Your task to perform on an android device: Search for vegetarian restaurants on Maps Image 0: 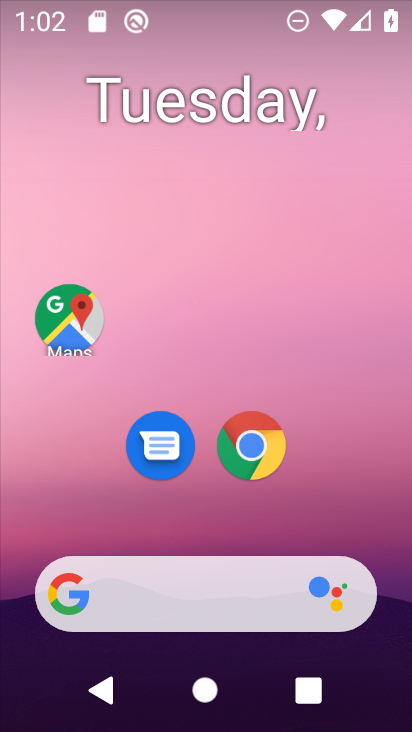
Step 0: click (63, 327)
Your task to perform on an android device: Search for vegetarian restaurants on Maps Image 1: 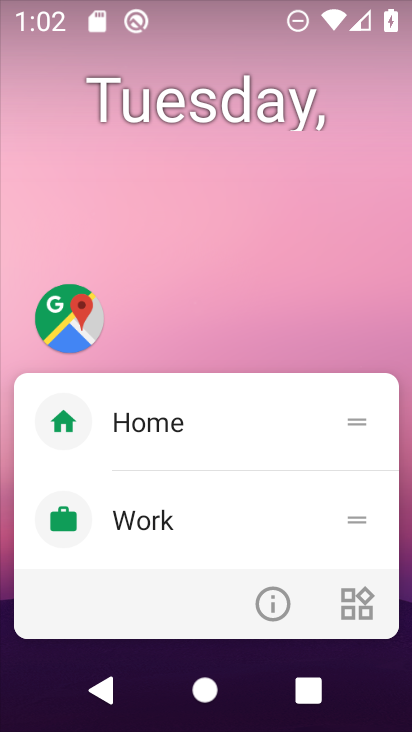
Step 1: click (72, 326)
Your task to perform on an android device: Search for vegetarian restaurants on Maps Image 2: 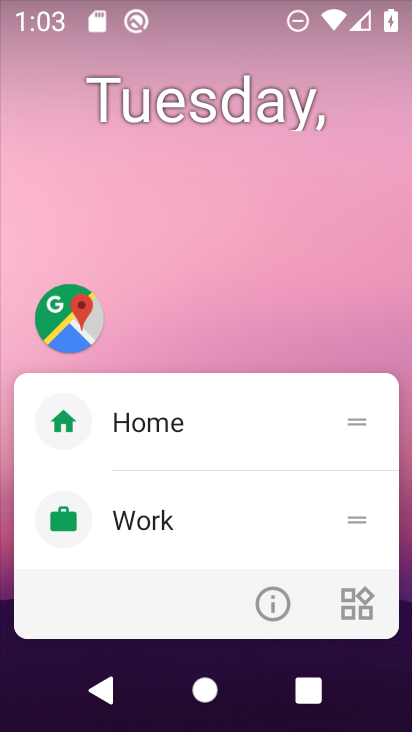
Step 2: click (56, 316)
Your task to perform on an android device: Search for vegetarian restaurants on Maps Image 3: 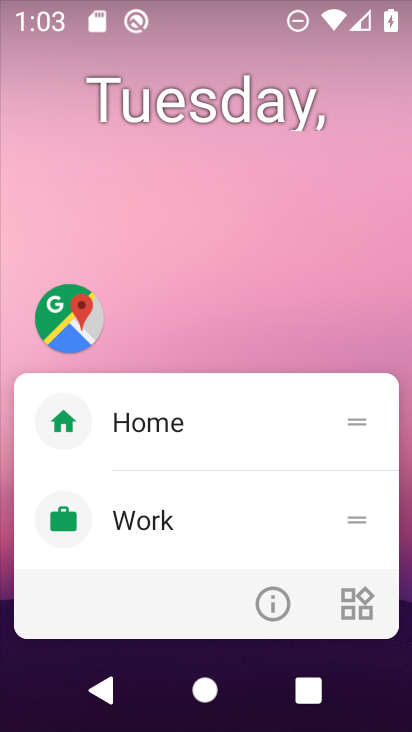
Step 3: click (65, 316)
Your task to perform on an android device: Search for vegetarian restaurants on Maps Image 4: 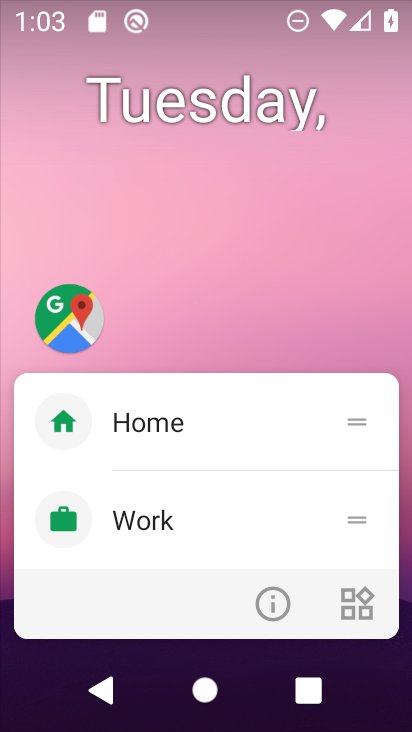
Step 4: click (198, 429)
Your task to perform on an android device: Search for vegetarian restaurants on Maps Image 5: 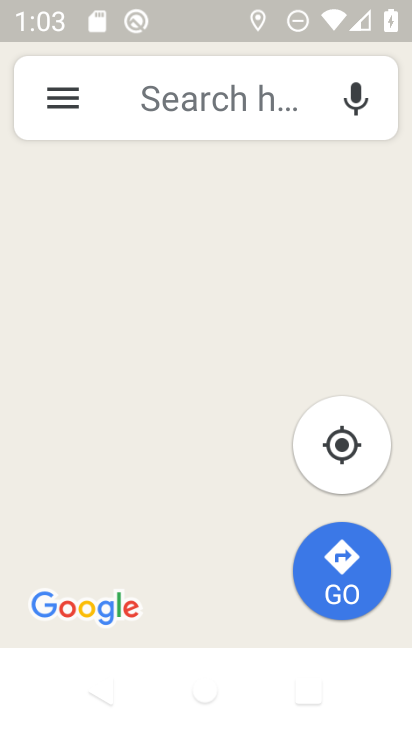
Step 5: click (264, 107)
Your task to perform on an android device: Search for vegetarian restaurants on Maps Image 6: 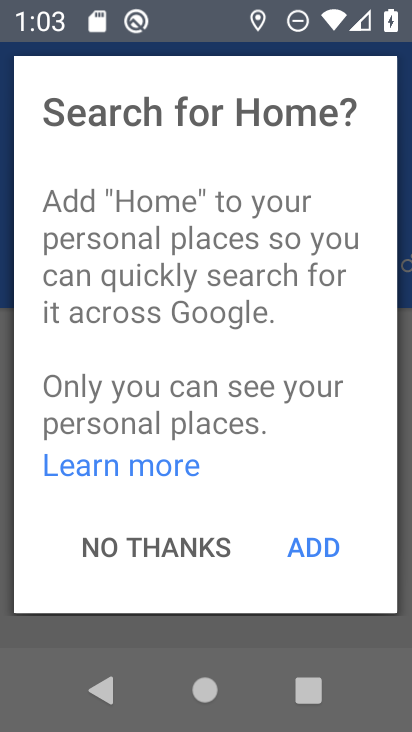
Step 6: click (226, 547)
Your task to perform on an android device: Search for vegetarian restaurants on Maps Image 7: 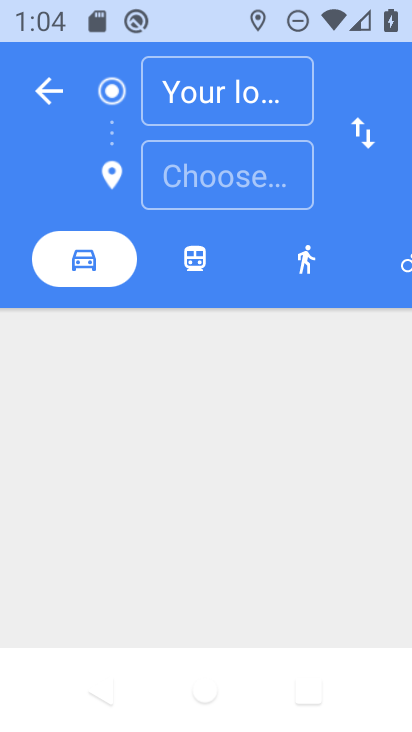
Step 7: click (245, 184)
Your task to perform on an android device: Search for vegetarian restaurants on Maps Image 8: 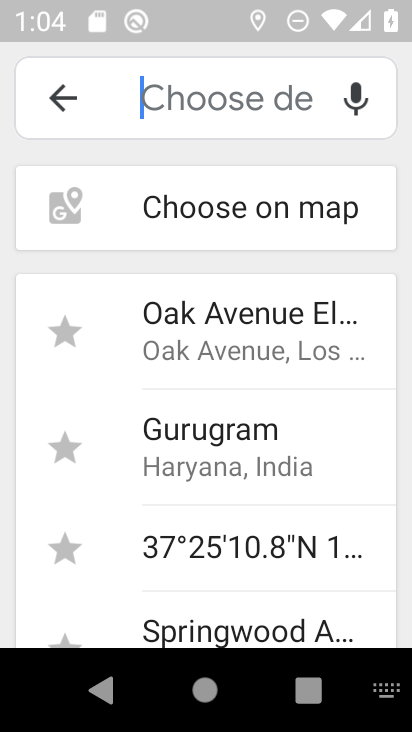
Step 8: type "vegetarian restaurant"
Your task to perform on an android device: Search for vegetarian restaurants on Maps Image 9: 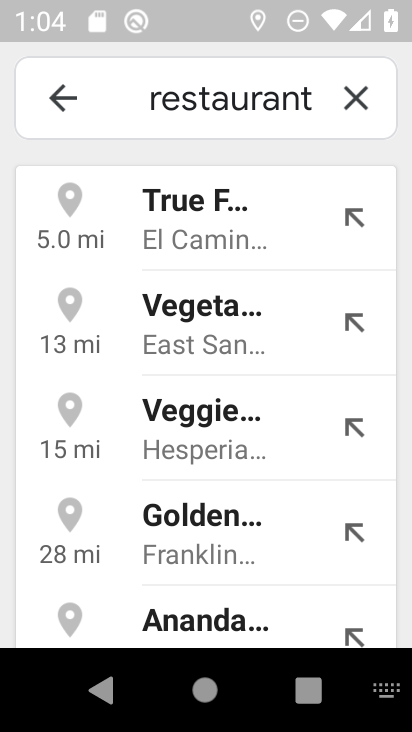
Step 9: click (252, 344)
Your task to perform on an android device: Search for vegetarian restaurants on Maps Image 10: 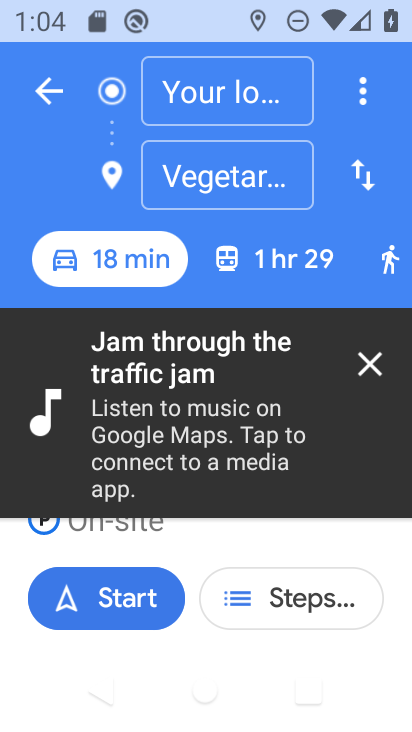
Step 10: task complete